Your task to perform on an android device: Go to settings Image 0: 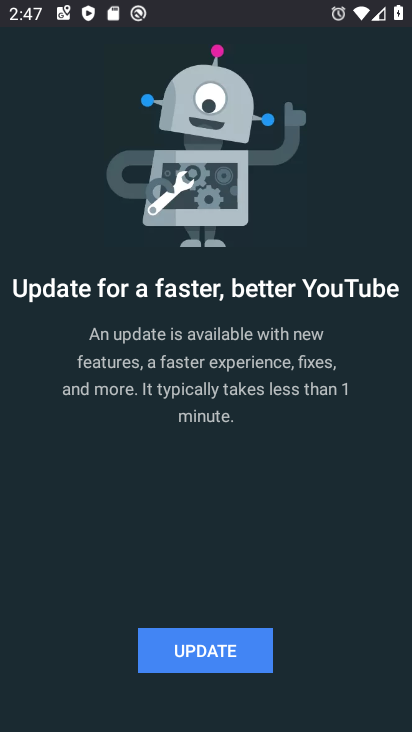
Step 0: press back button
Your task to perform on an android device: Go to settings Image 1: 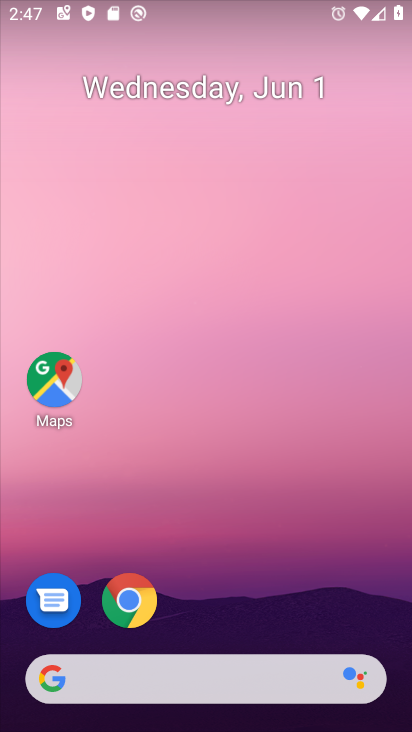
Step 1: drag from (300, 514) to (196, 1)
Your task to perform on an android device: Go to settings Image 2: 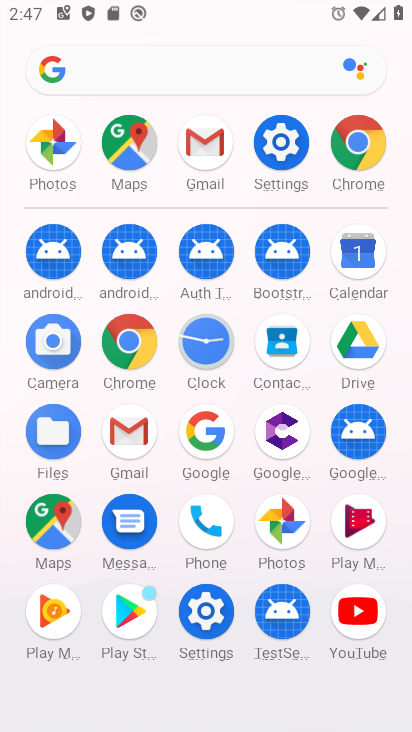
Step 2: drag from (1, 546) to (0, 216)
Your task to perform on an android device: Go to settings Image 3: 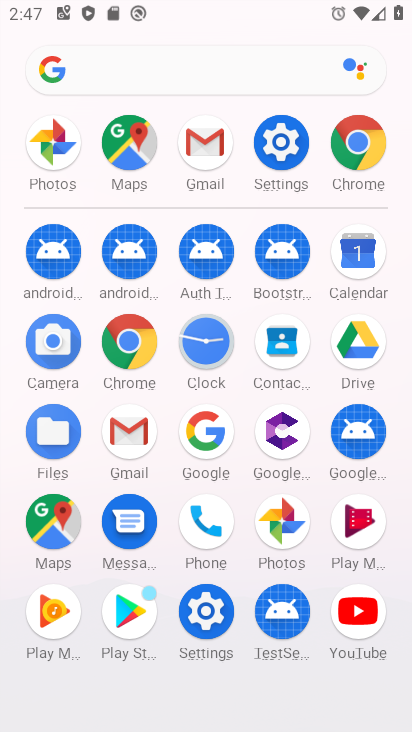
Step 3: click (205, 608)
Your task to perform on an android device: Go to settings Image 4: 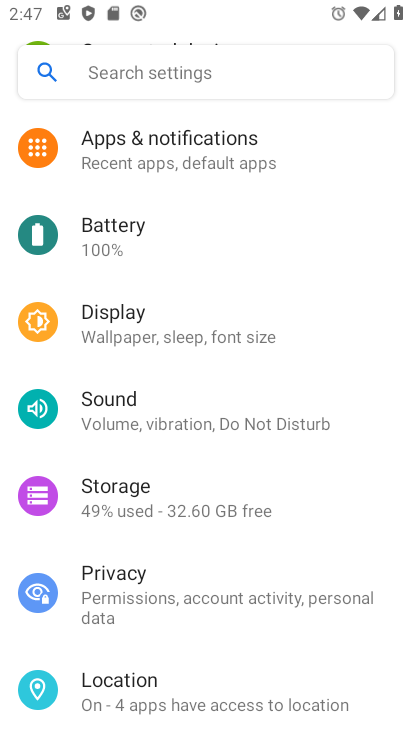
Step 4: task complete